Your task to perform on an android device: open chrome privacy settings Image 0: 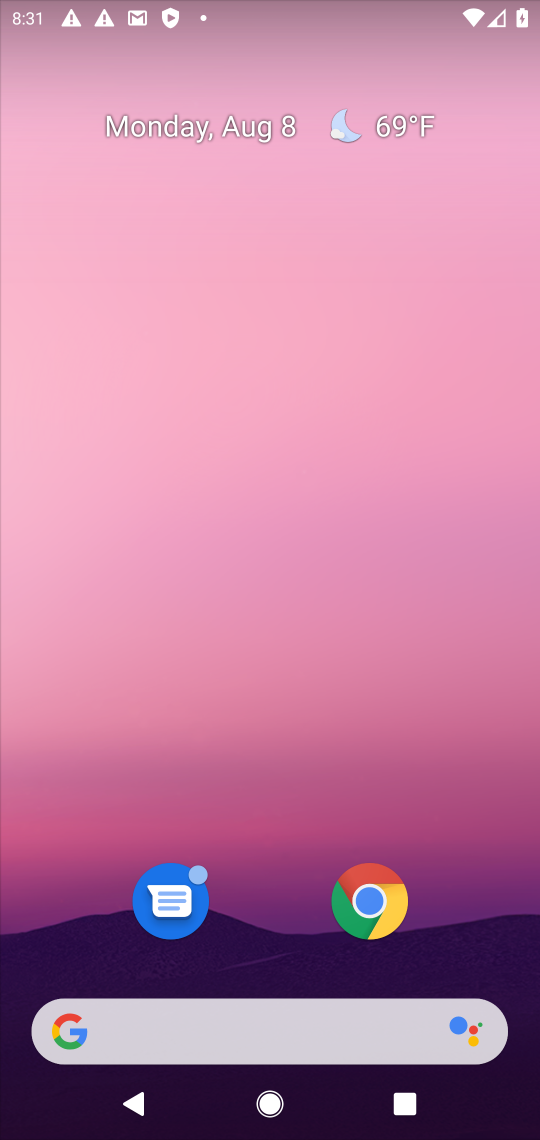
Step 0: click (368, 918)
Your task to perform on an android device: open chrome privacy settings Image 1: 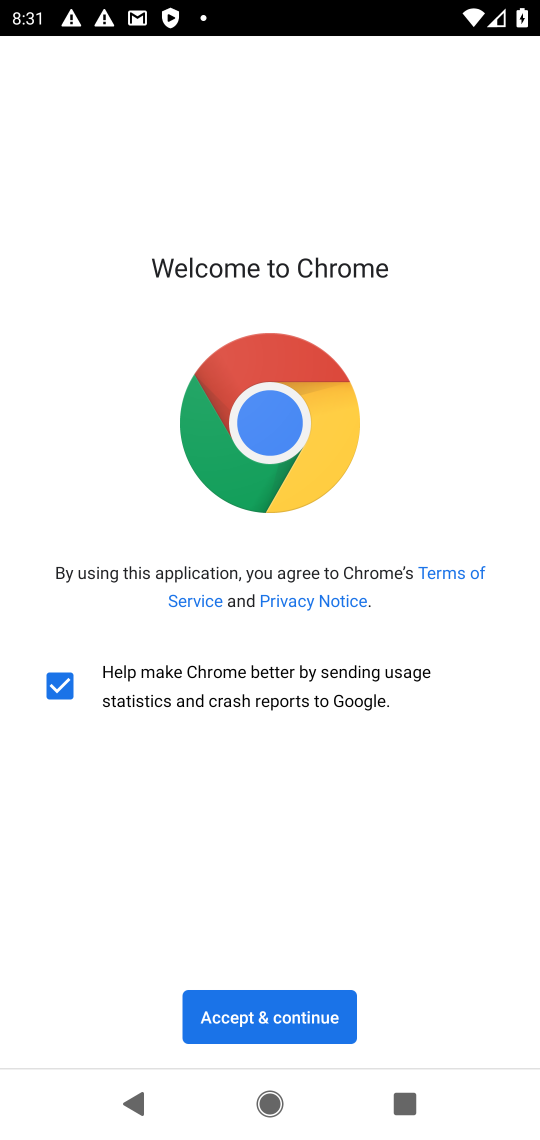
Step 1: click (259, 1012)
Your task to perform on an android device: open chrome privacy settings Image 2: 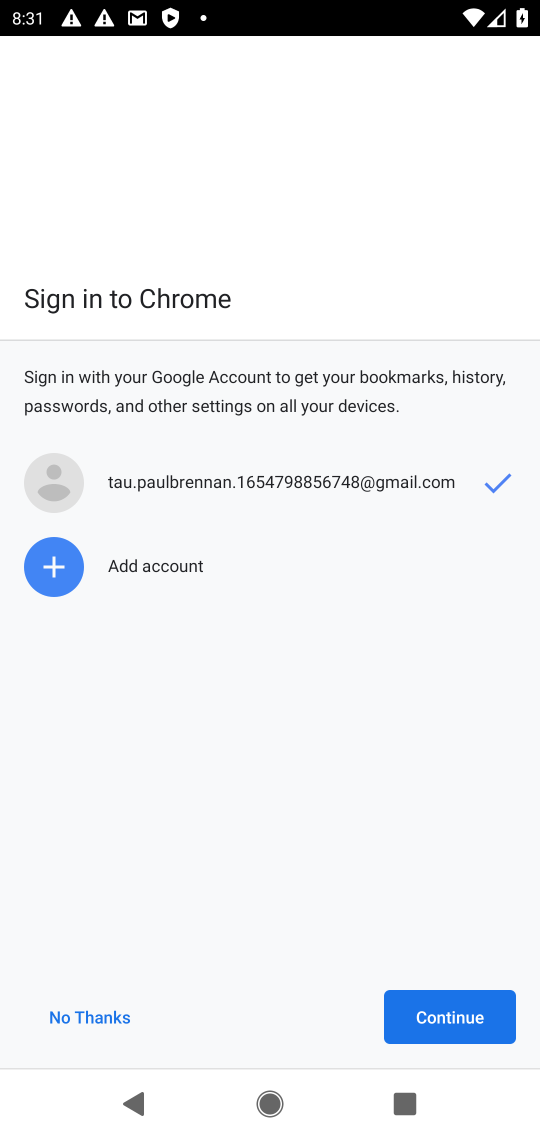
Step 2: click (451, 1024)
Your task to perform on an android device: open chrome privacy settings Image 3: 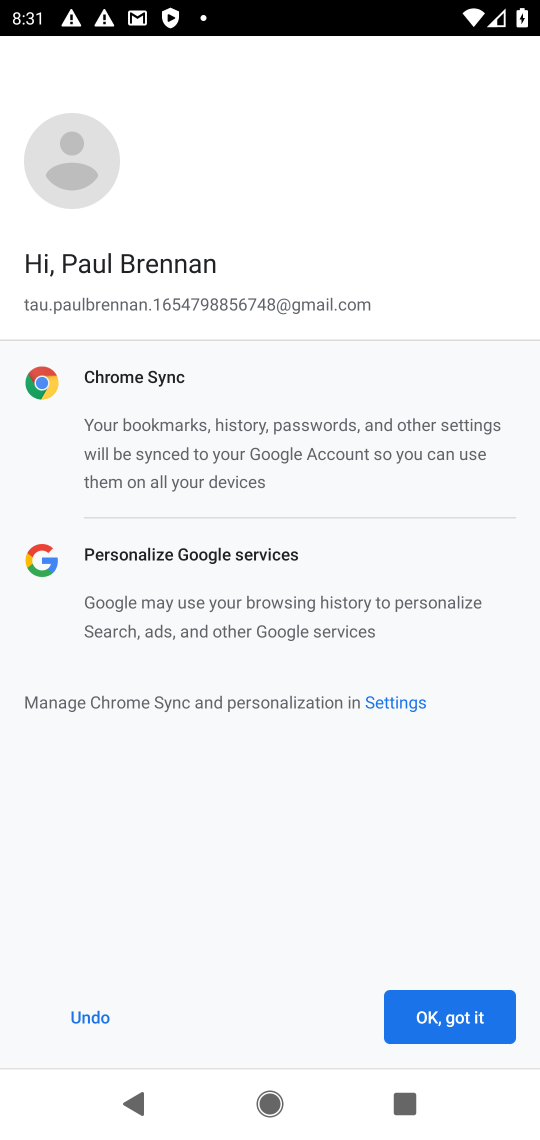
Step 3: click (451, 1024)
Your task to perform on an android device: open chrome privacy settings Image 4: 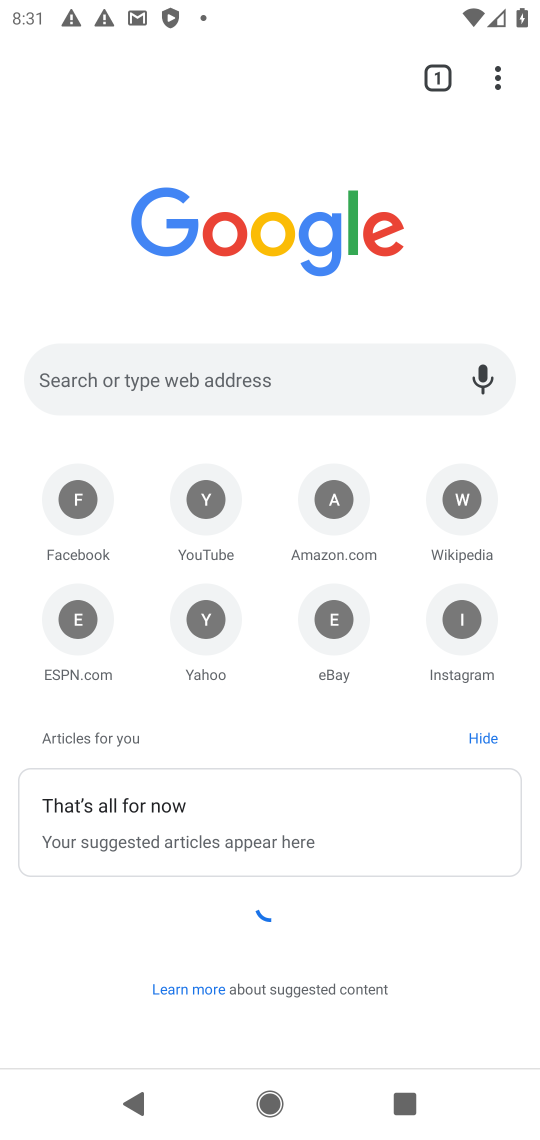
Step 4: click (501, 84)
Your task to perform on an android device: open chrome privacy settings Image 5: 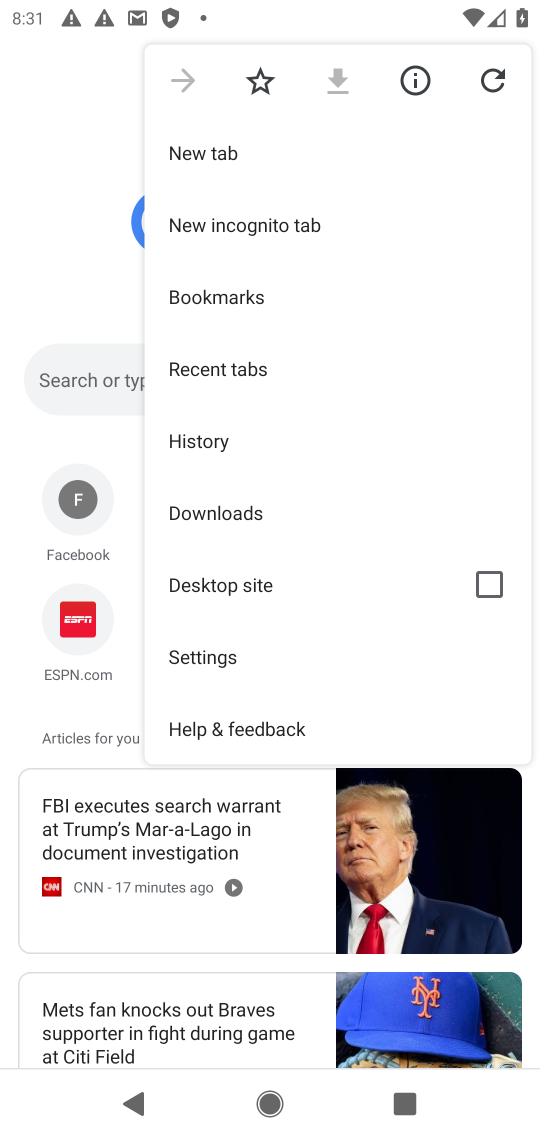
Step 5: click (195, 656)
Your task to perform on an android device: open chrome privacy settings Image 6: 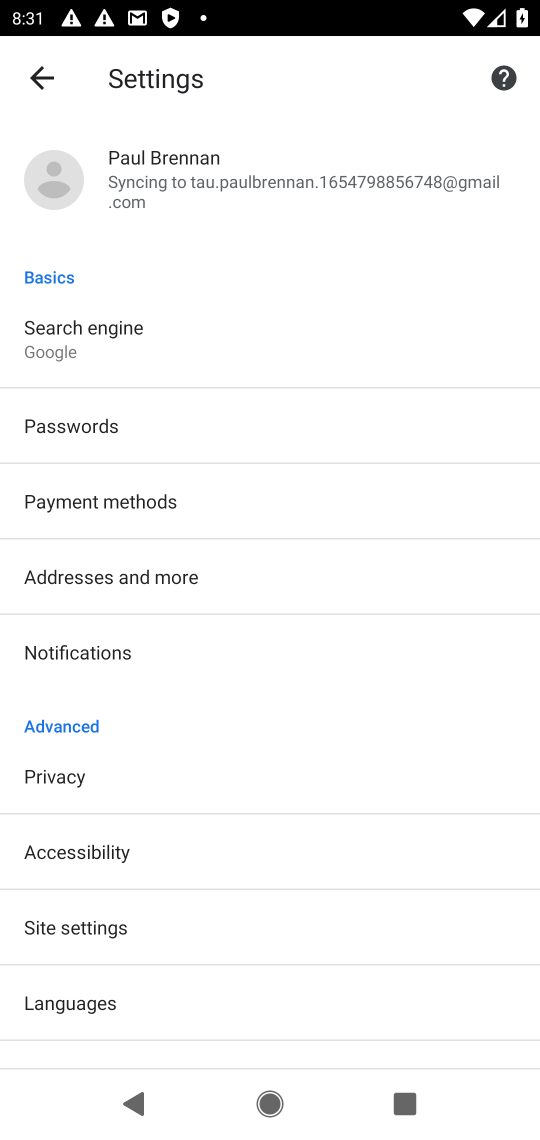
Step 6: click (59, 781)
Your task to perform on an android device: open chrome privacy settings Image 7: 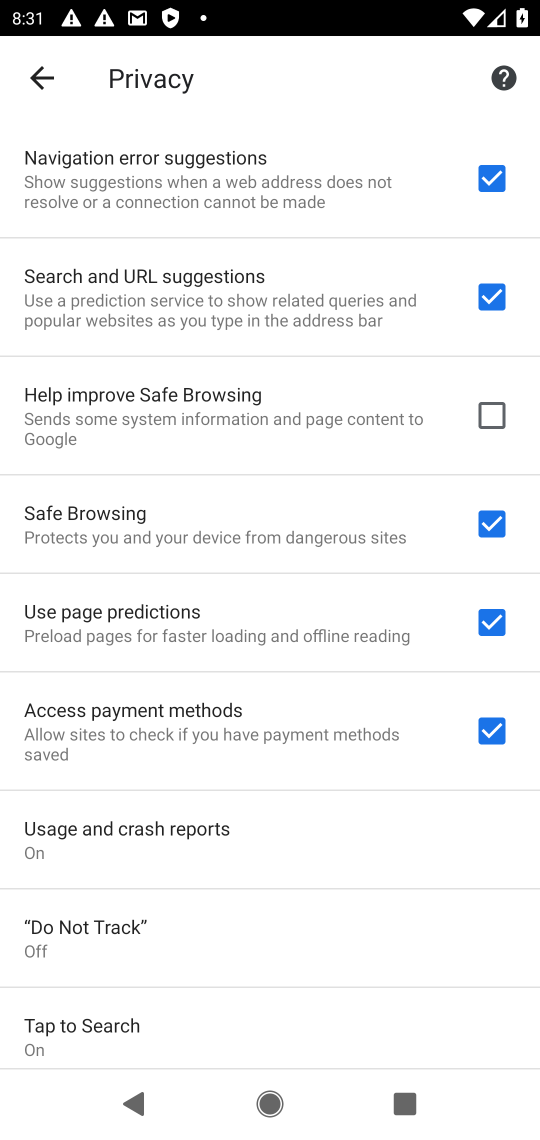
Step 7: task complete